Your task to perform on an android device: check android version Image 0: 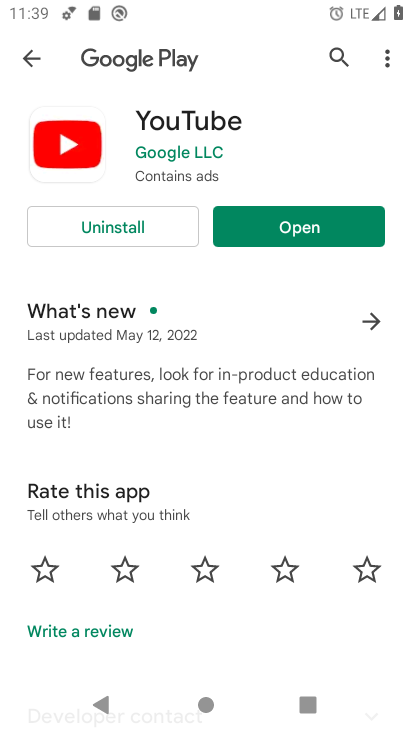
Step 0: press home button
Your task to perform on an android device: check android version Image 1: 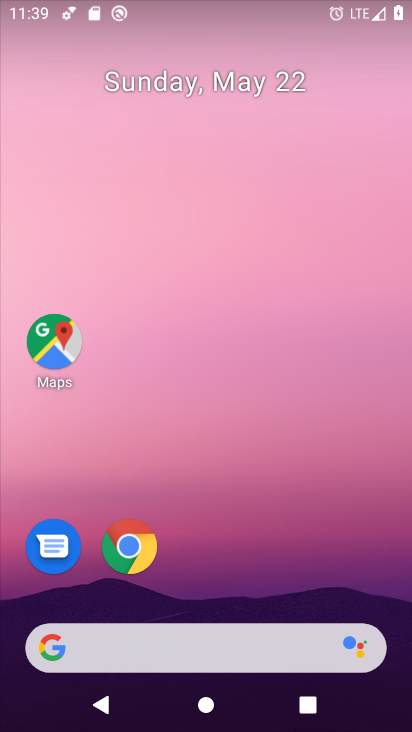
Step 1: drag from (287, 596) to (325, 217)
Your task to perform on an android device: check android version Image 2: 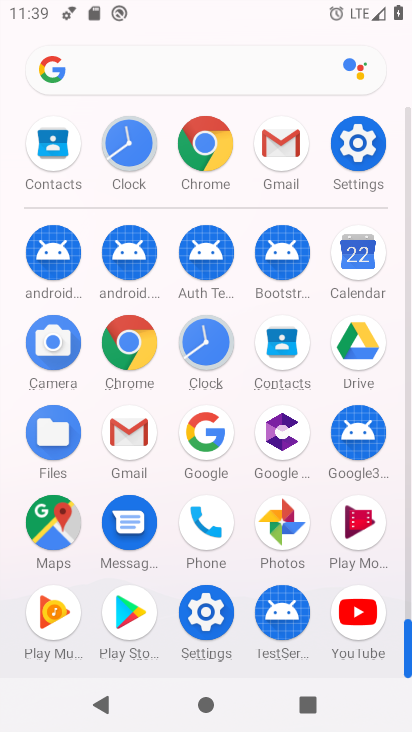
Step 2: click (363, 173)
Your task to perform on an android device: check android version Image 3: 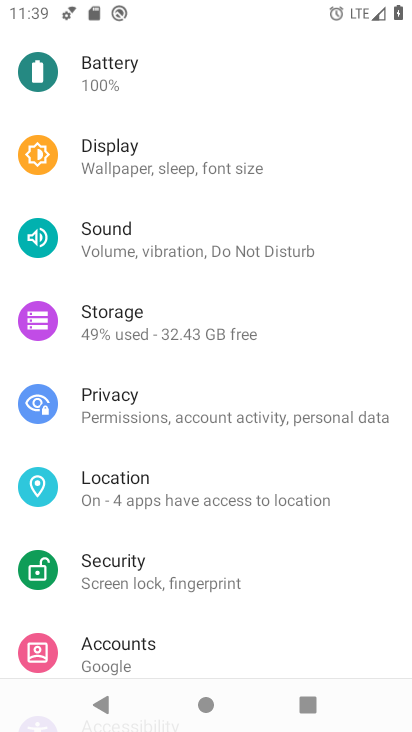
Step 3: drag from (211, 496) to (257, 294)
Your task to perform on an android device: check android version Image 4: 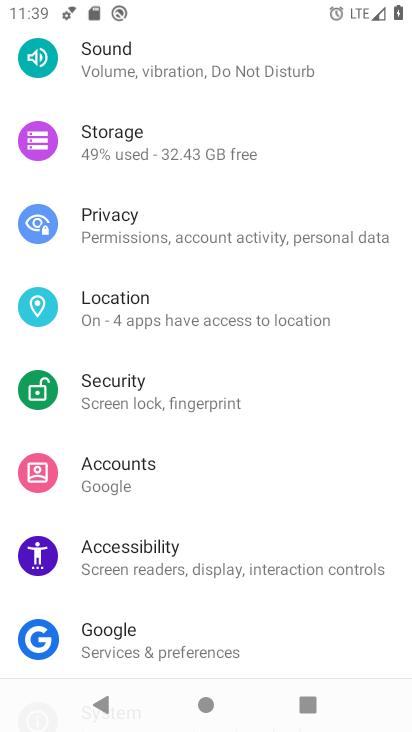
Step 4: drag from (251, 516) to (282, 306)
Your task to perform on an android device: check android version Image 5: 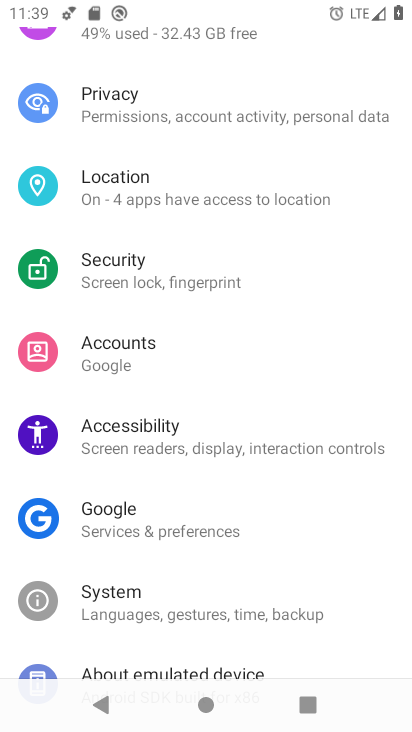
Step 5: drag from (237, 485) to (282, 268)
Your task to perform on an android device: check android version Image 6: 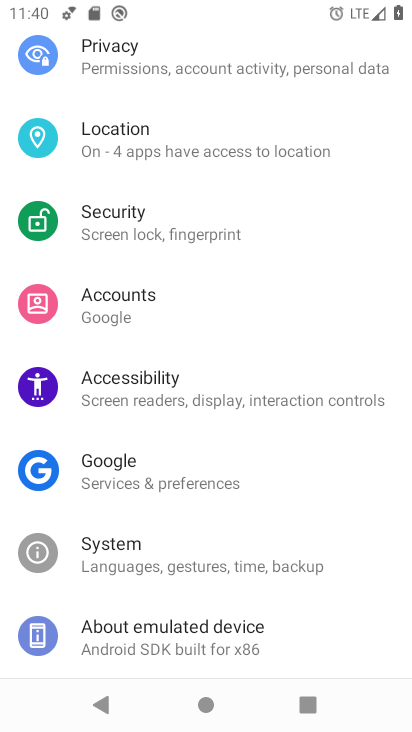
Step 6: drag from (316, 492) to (351, 214)
Your task to perform on an android device: check android version Image 7: 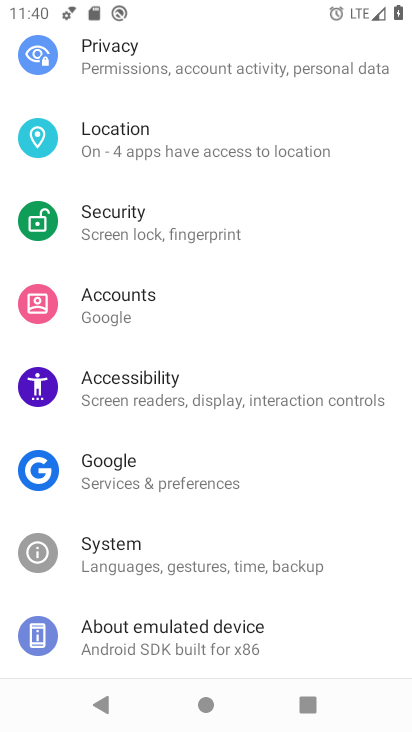
Step 7: click (282, 648)
Your task to perform on an android device: check android version Image 8: 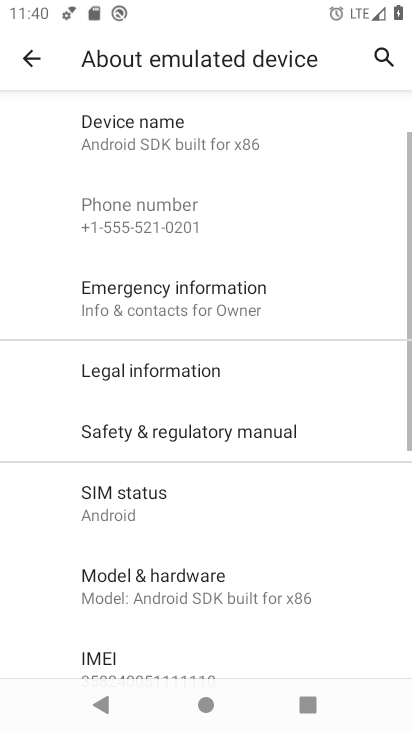
Step 8: drag from (218, 540) to (290, 186)
Your task to perform on an android device: check android version Image 9: 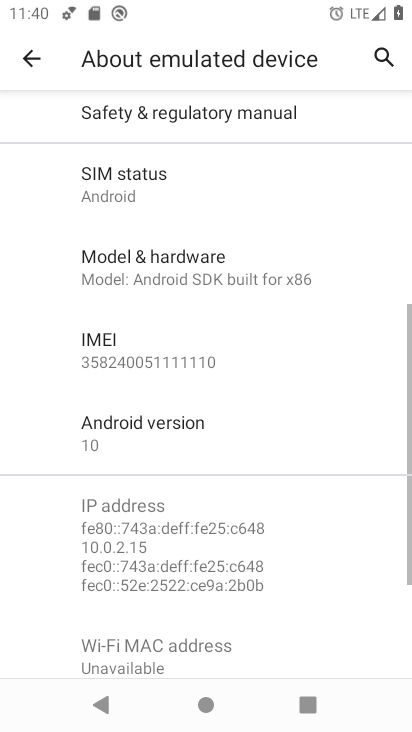
Step 9: click (213, 447)
Your task to perform on an android device: check android version Image 10: 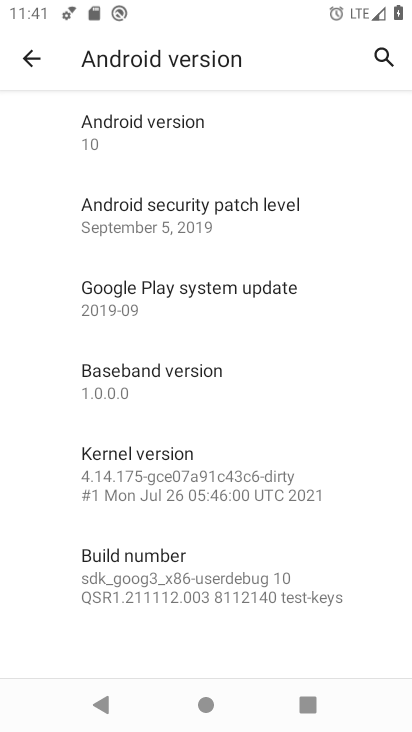
Step 10: click (216, 126)
Your task to perform on an android device: check android version Image 11: 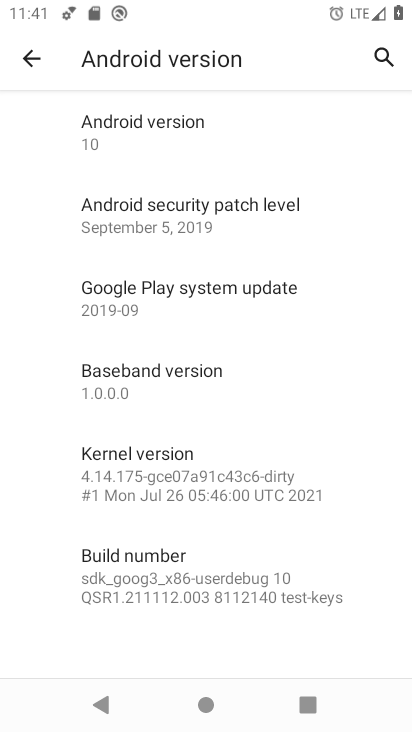
Step 11: task complete